Your task to perform on an android device: Open the stopwatch Image 0: 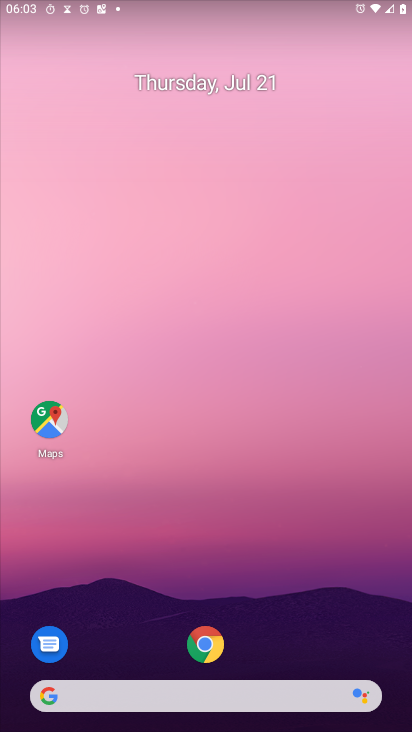
Step 0: press home button
Your task to perform on an android device: Open the stopwatch Image 1: 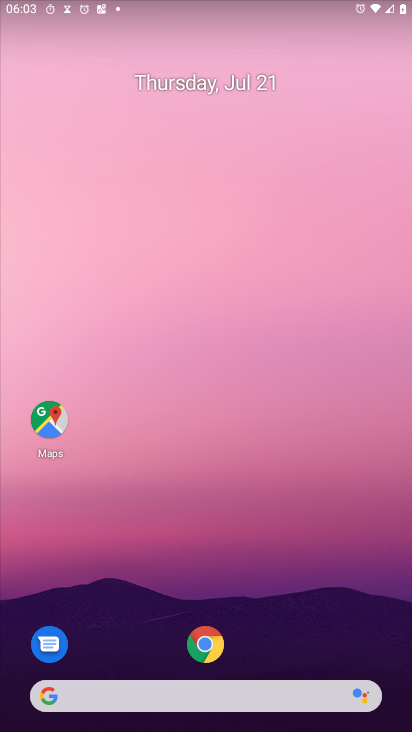
Step 1: press home button
Your task to perform on an android device: Open the stopwatch Image 2: 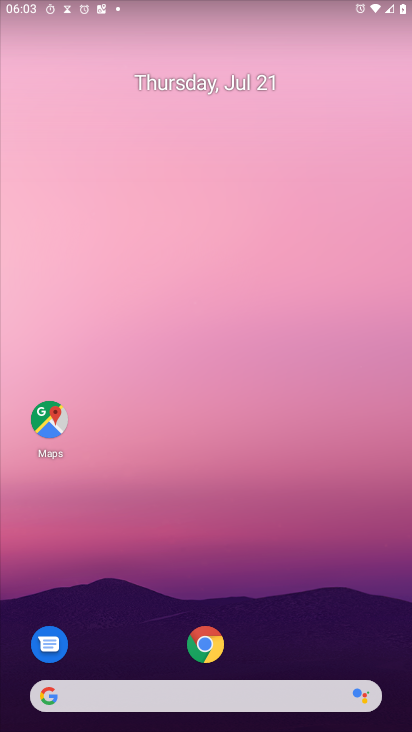
Step 2: drag from (316, 625) to (264, 136)
Your task to perform on an android device: Open the stopwatch Image 3: 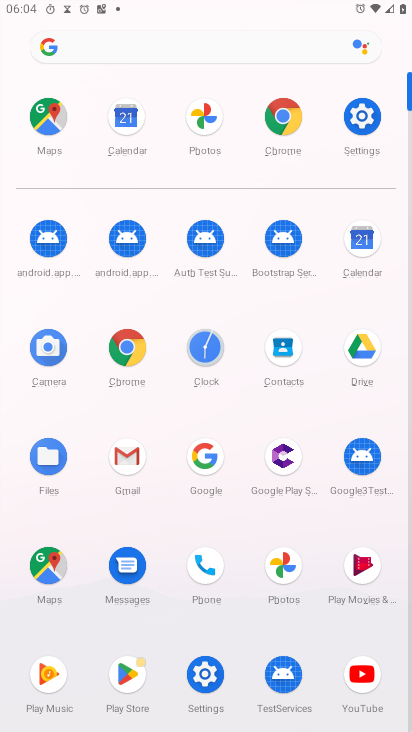
Step 3: click (206, 353)
Your task to perform on an android device: Open the stopwatch Image 4: 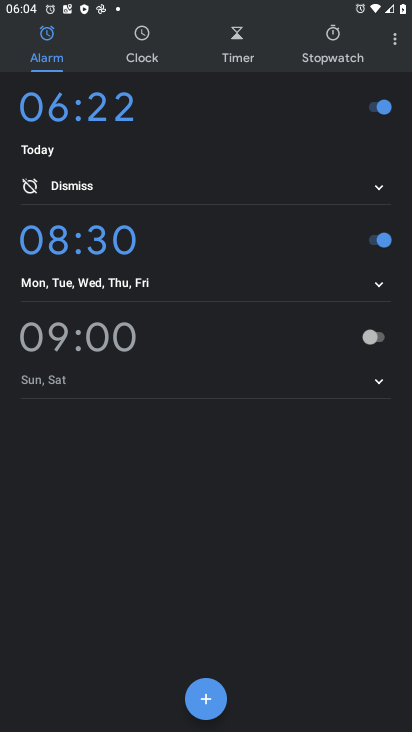
Step 4: click (324, 41)
Your task to perform on an android device: Open the stopwatch Image 5: 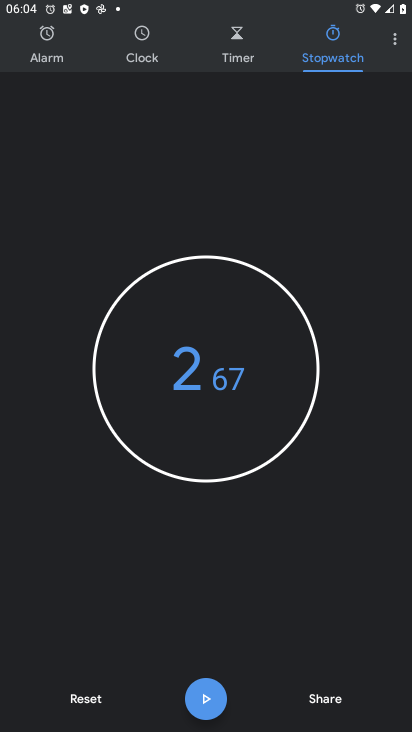
Step 5: task complete